Your task to perform on an android device: change notification settings in the gmail app Image 0: 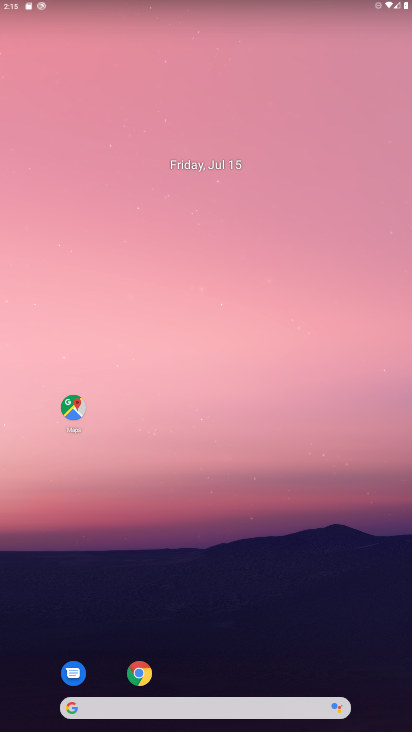
Step 0: drag from (174, 700) to (206, 239)
Your task to perform on an android device: change notification settings in the gmail app Image 1: 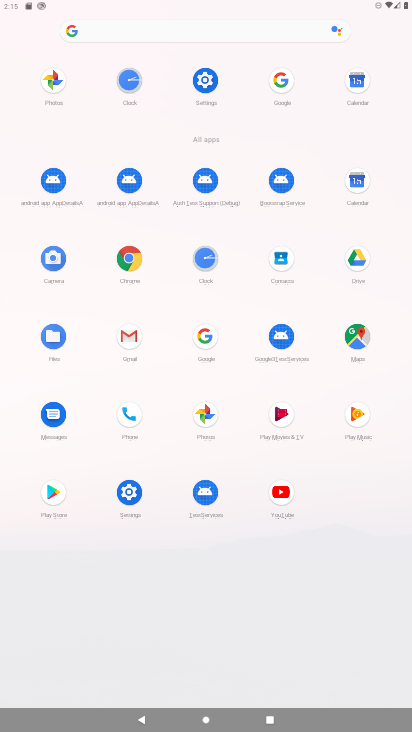
Step 1: click (125, 340)
Your task to perform on an android device: change notification settings in the gmail app Image 2: 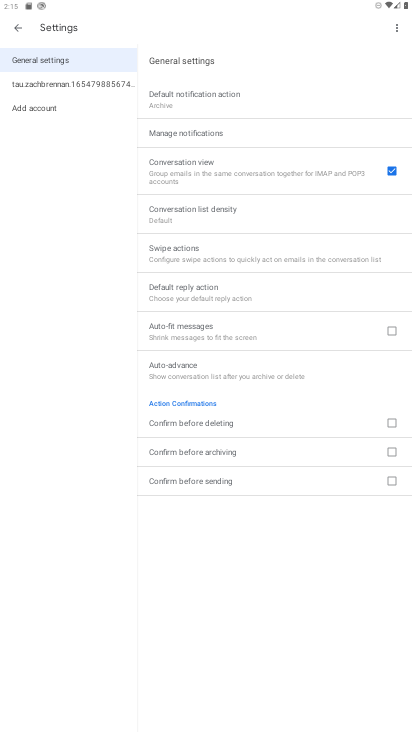
Step 2: click (101, 78)
Your task to perform on an android device: change notification settings in the gmail app Image 3: 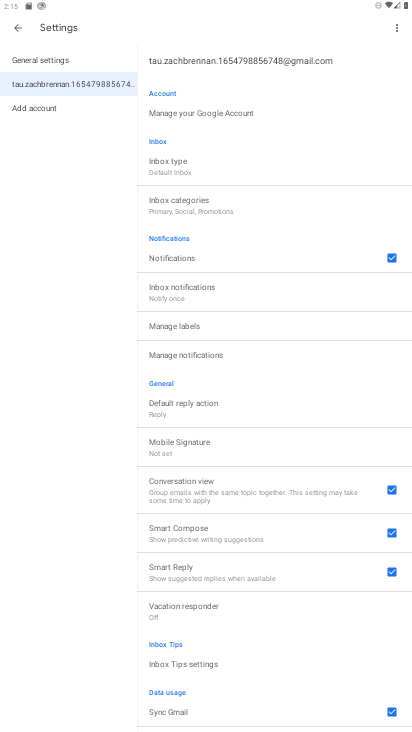
Step 3: click (189, 351)
Your task to perform on an android device: change notification settings in the gmail app Image 4: 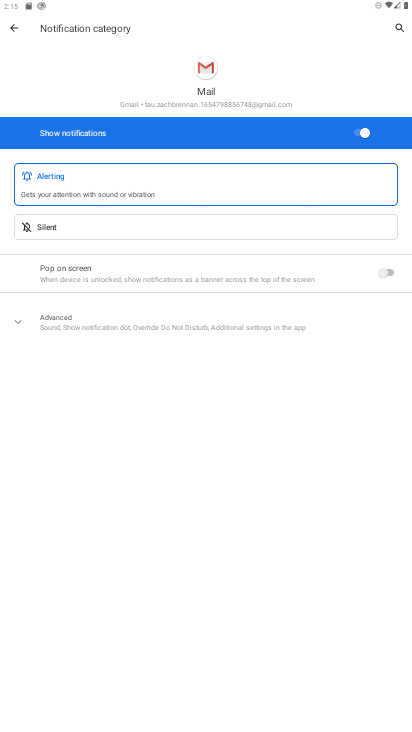
Step 4: click (357, 134)
Your task to perform on an android device: change notification settings in the gmail app Image 5: 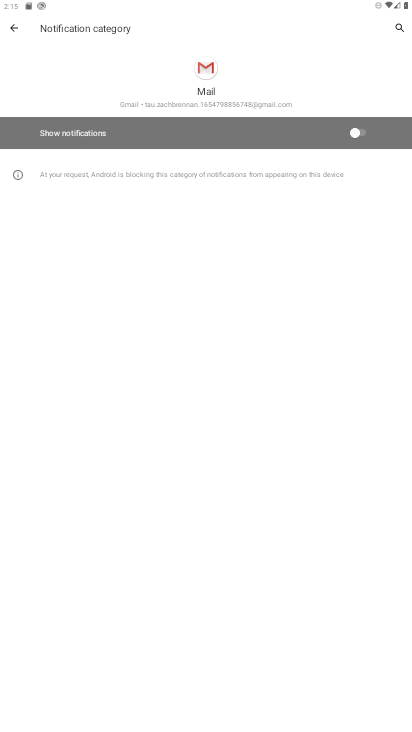
Step 5: task complete